Your task to perform on an android device: delete a single message in the gmail app Image 0: 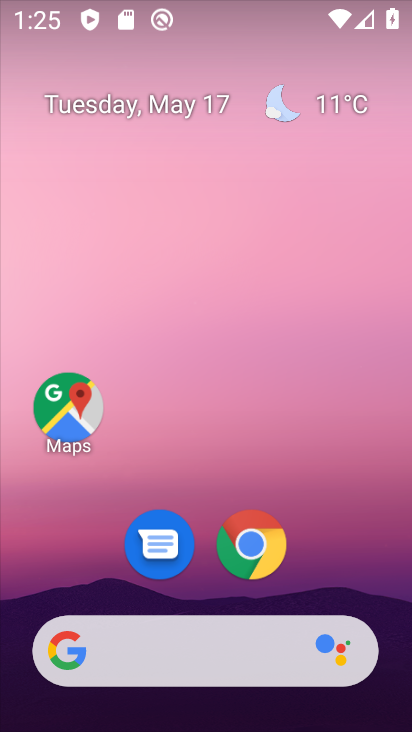
Step 0: press home button
Your task to perform on an android device: delete a single message in the gmail app Image 1: 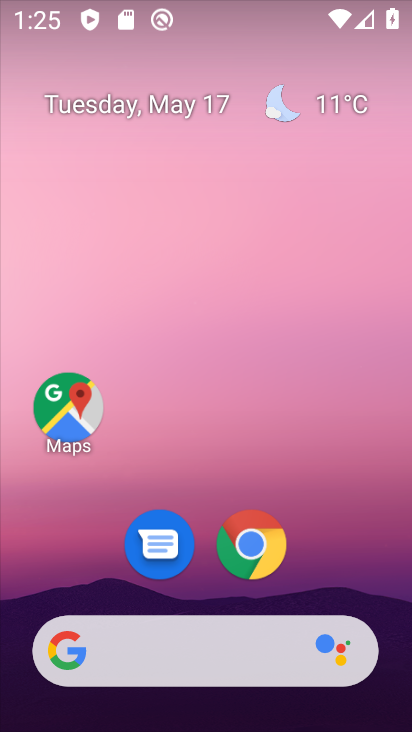
Step 1: drag from (361, 566) to (340, 61)
Your task to perform on an android device: delete a single message in the gmail app Image 2: 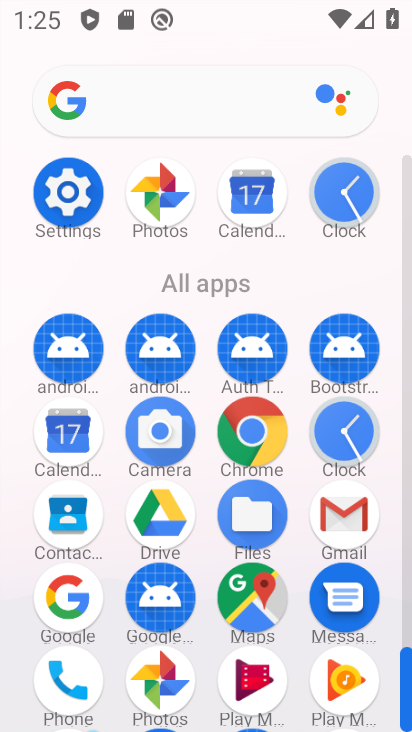
Step 2: click (343, 519)
Your task to perform on an android device: delete a single message in the gmail app Image 3: 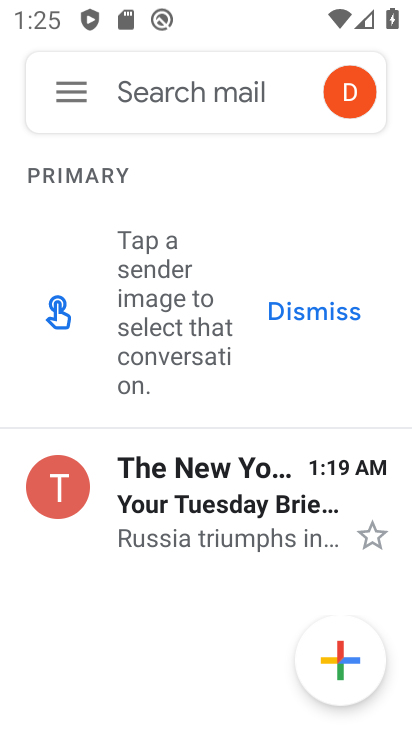
Step 3: click (218, 495)
Your task to perform on an android device: delete a single message in the gmail app Image 4: 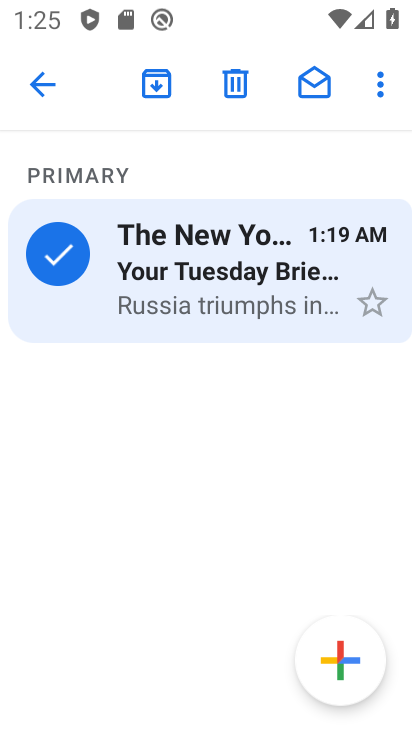
Step 4: click (245, 77)
Your task to perform on an android device: delete a single message in the gmail app Image 5: 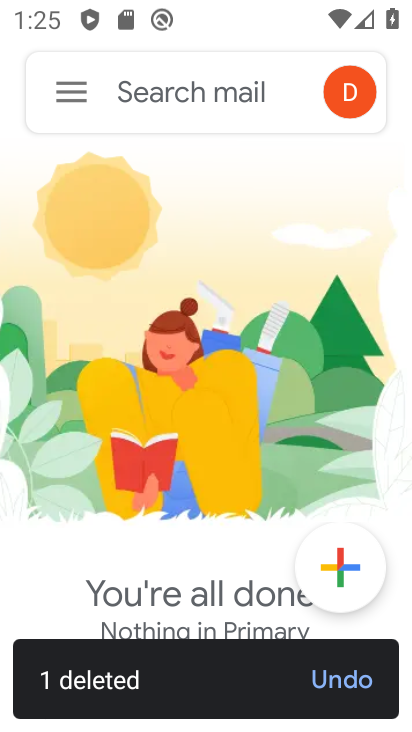
Step 5: task complete